Your task to perform on an android device: star an email in the gmail app Image 0: 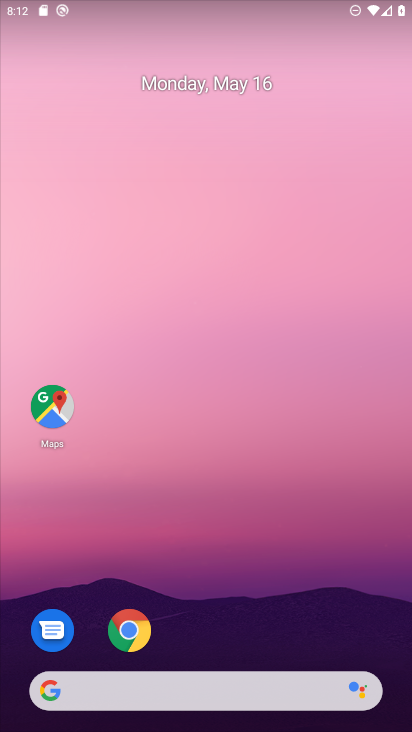
Step 0: drag from (146, 271) to (94, 110)
Your task to perform on an android device: star an email in the gmail app Image 1: 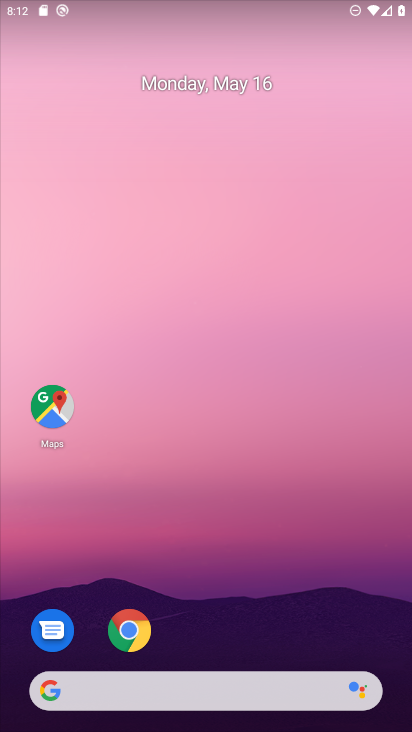
Step 1: drag from (337, 607) to (190, 53)
Your task to perform on an android device: star an email in the gmail app Image 2: 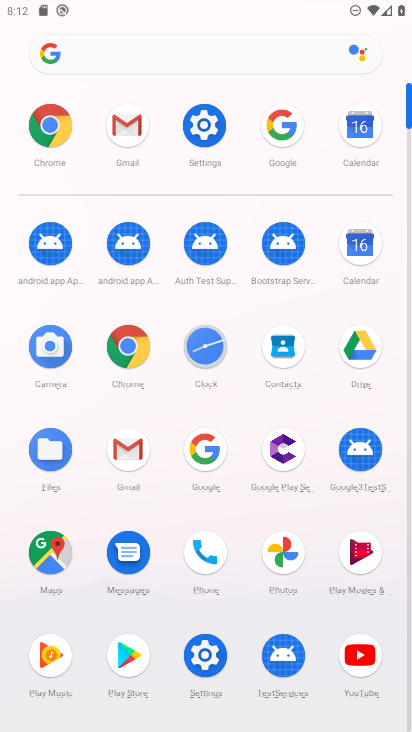
Step 2: click (116, 456)
Your task to perform on an android device: star an email in the gmail app Image 3: 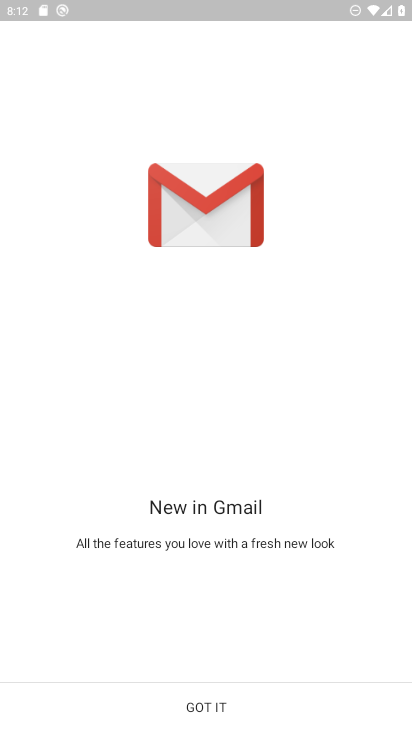
Step 3: task complete